Your task to perform on an android device: Go to display settings Image 0: 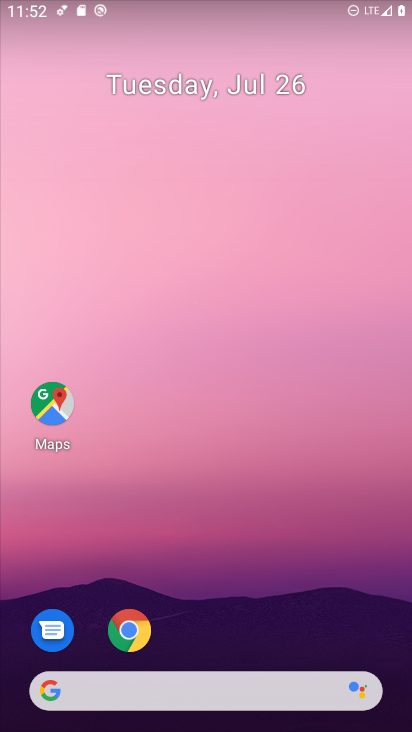
Step 0: drag from (379, 643) to (335, 203)
Your task to perform on an android device: Go to display settings Image 1: 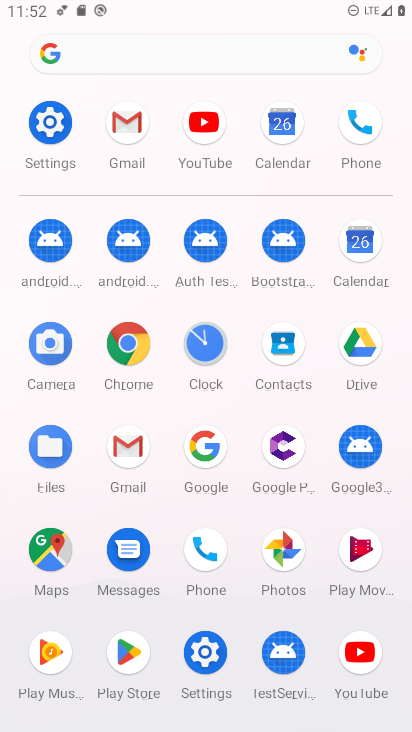
Step 1: click (206, 654)
Your task to perform on an android device: Go to display settings Image 2: 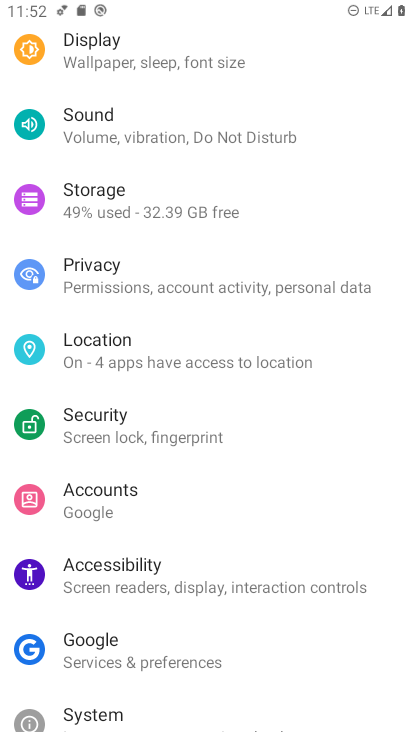
Step 2: drag from (109, 62) to (171, 362)
Your task to perform on an android device: Go to display settings Image 3: 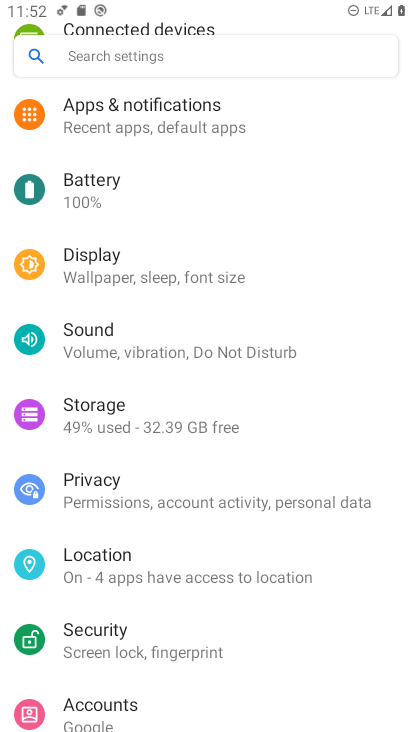
Step 3: click (95, 262)
Your task to perform on an android device: Go to display settings Image 4: 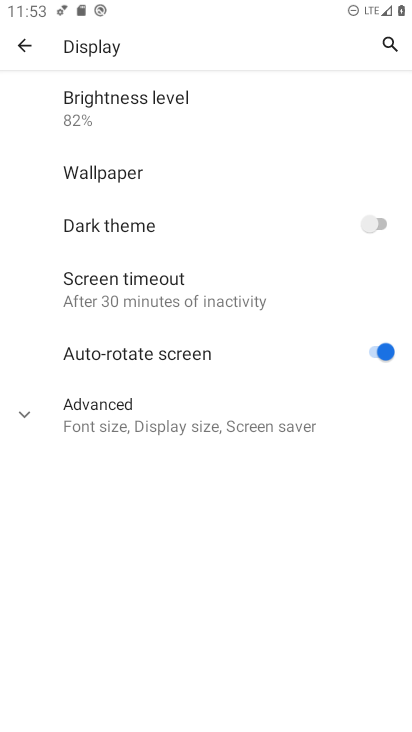
Step 4: click (25, 415)
Your task to perform on an android device: Go to display settings Image 5: 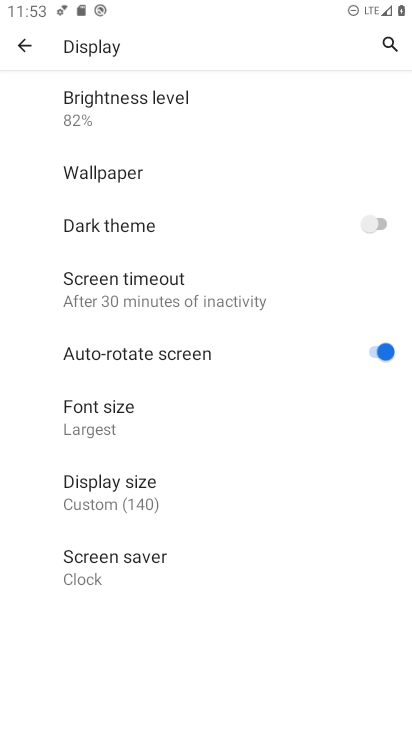
Step 5: task complete